Your task to perform on an android device: find photos in the google photos app Image 0: 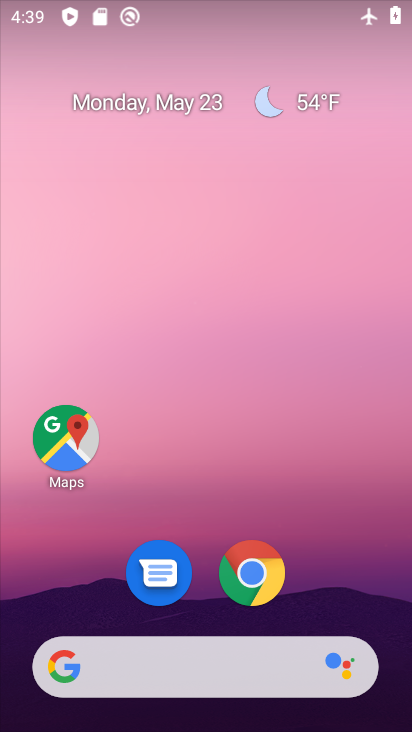
Step 0: drag from (187, 726) to (189, 178)
Your task to perform on an android device: find photos in the google photos app Image 1: 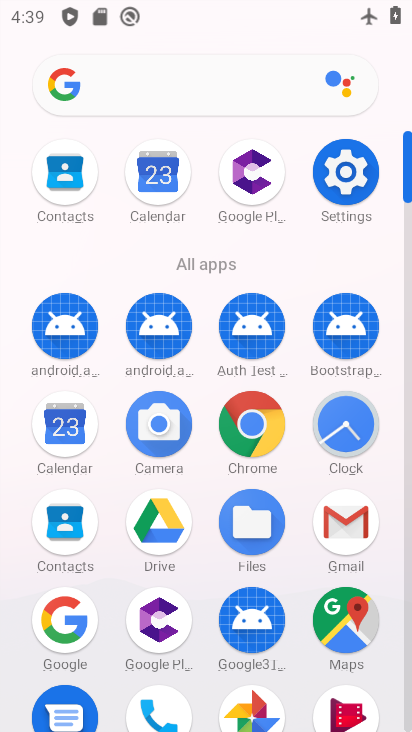
Step 1: click (254, 705)
Your task to perform on an android device: find photos in the google photos app Image 2: 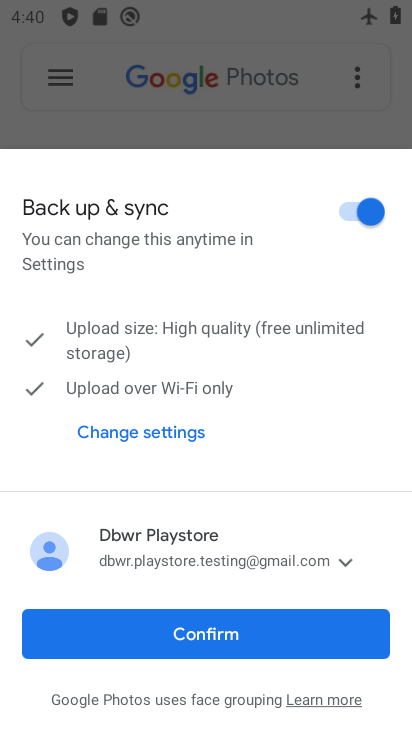
Step 2: click (175, 631)
Your task to perform on an android device: find photos in the google photos app Image 3: 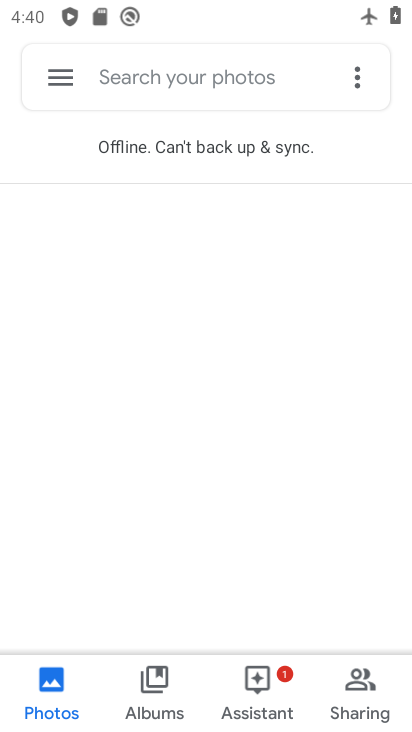
Step 3: task complete